Your task to perform on an android device: open app "Lyft - Rideshare, Bikes, Scooters & Transit" Image 0: 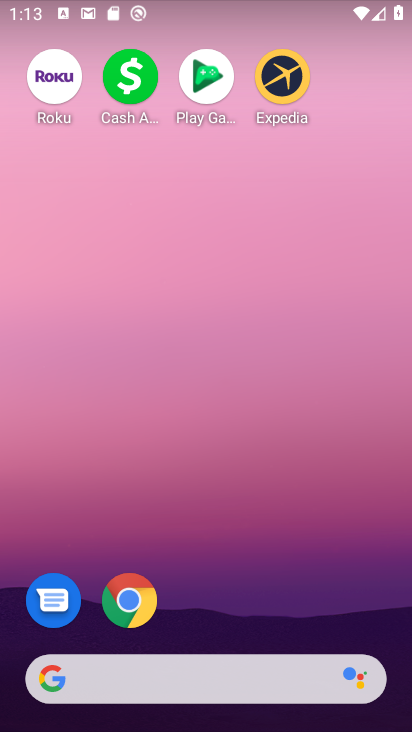
Step 0: drag from (236, 630) to (234, 44)
Your task to perform on an android device: open app "Lyft - Rideshare, Bikes, Scooters & Transit" Image 1: 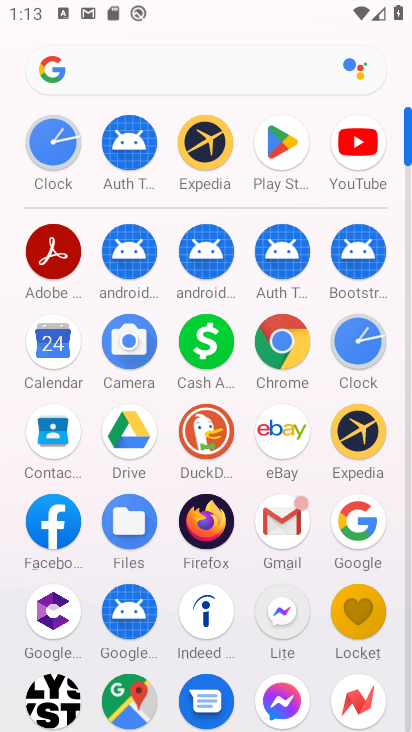
Step 1: click (276, 131)
Your task to perform on an android device: open app "Lyft - Rideshare, Bikes, Scooters & Transit" Image 2: 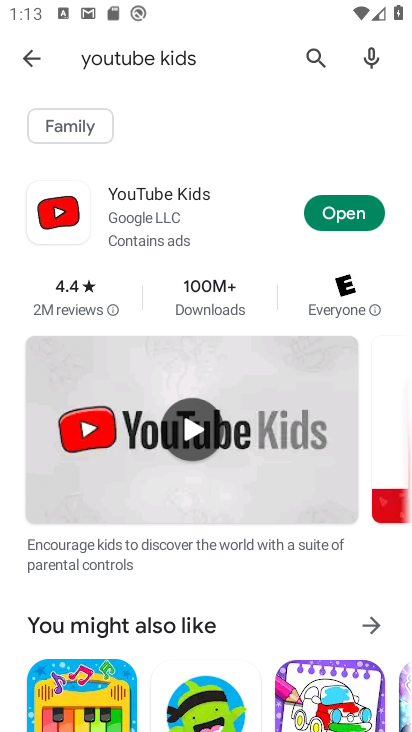
Step 2: click (310, 61)
Your task to perform on an android device: open app "Lyft - Rideshare, Bikes, Scooters & Transit" Image 3: 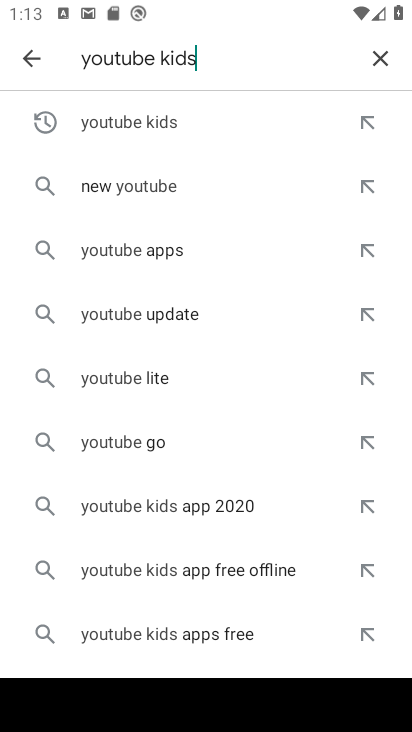
Step 3: click (367, 64)
Your task to perform on an android device: open app "Lyft - Rideshare, Bikes, Scooters & Transit" Image 4: 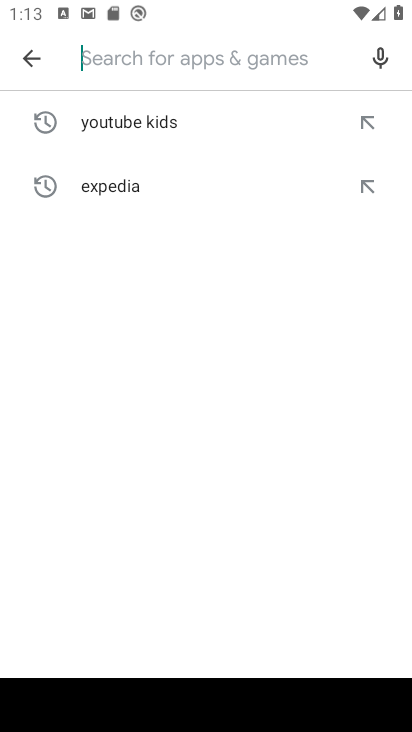
Step 4: type "lyft"
Your task to perform on an android device: open app "Lyft - Rideshare, Bikes, Scooters & Transit" Image 5: 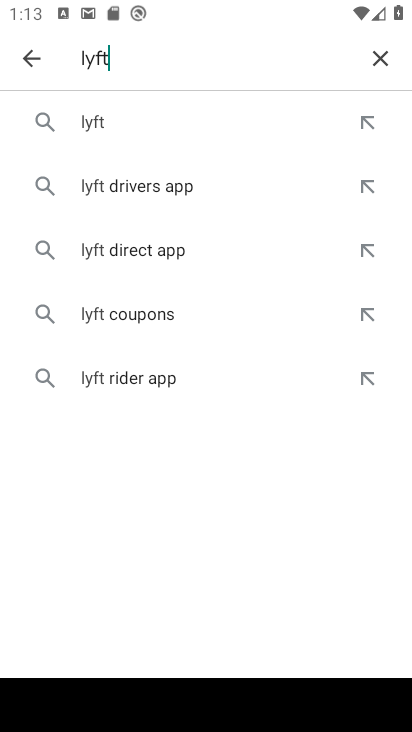
Step 5: click (234, 118)
Your task to perform on an android device: open app "Lyft - Rideshare, Bikes, Scooters & Transit" Image 6: 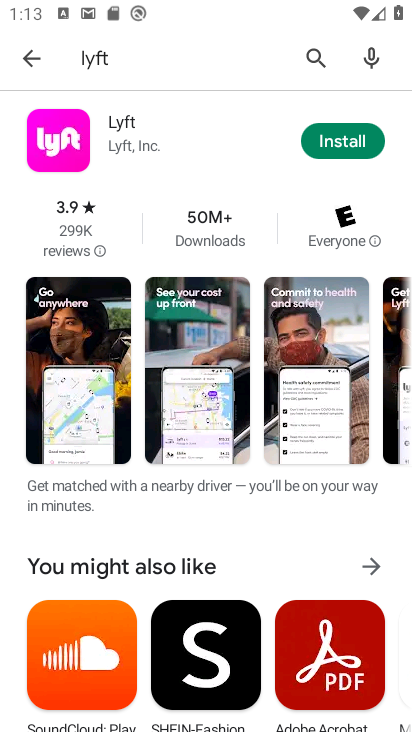
Step 6: click (355, 136)
Your task to perform on an android device: open app "Lyft - Rideshare, Bikes, Scooters & Transit" Image 7: 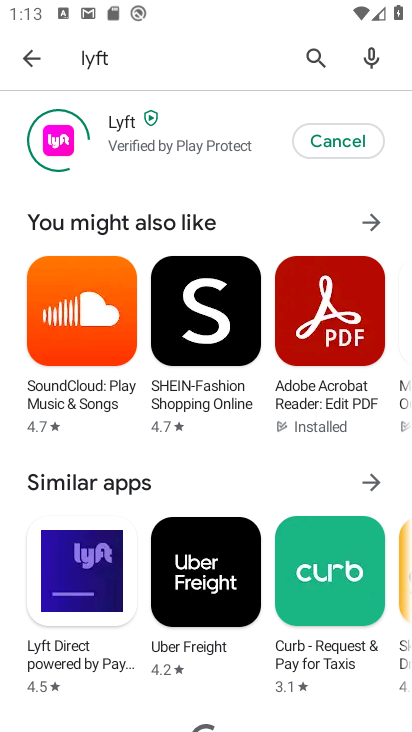
Step 7: task complete